Your task to perform on an android device: Go to Android settings Image 0: 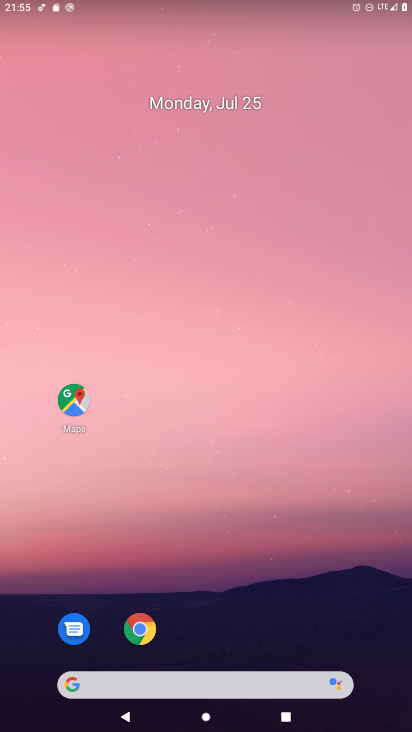
Step 0: drag from (182, 689) to (198, 26)
Your task to perform on an android device: Go to Android settings Image 1: 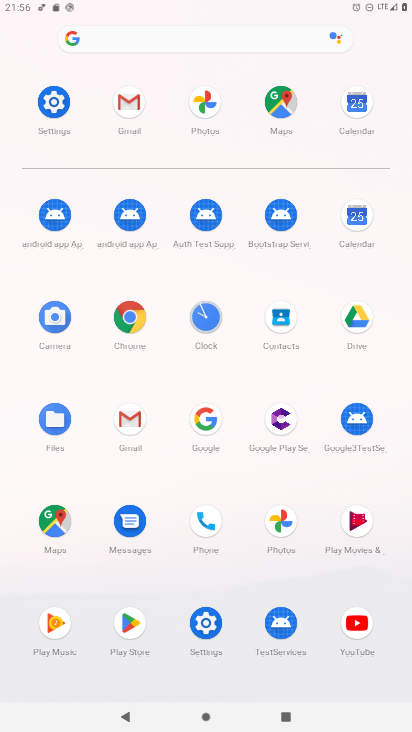
Step 1: click (54, 101)
Your task to perform on an android device: Go to Android settings Image 2: 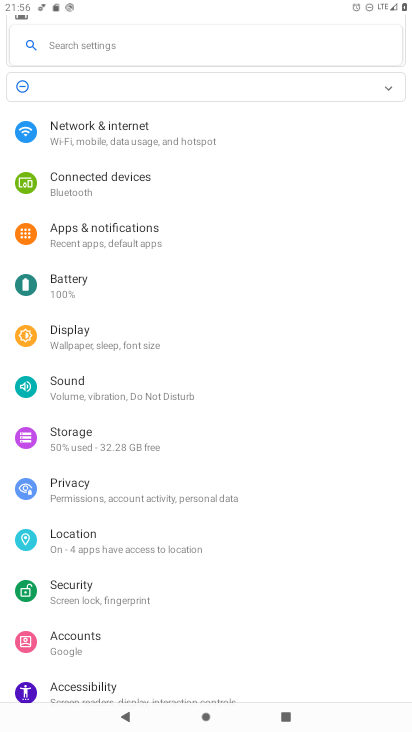
Step 2: task complete